Your task to perform on an android device: Go to accessibility settings Image 0: 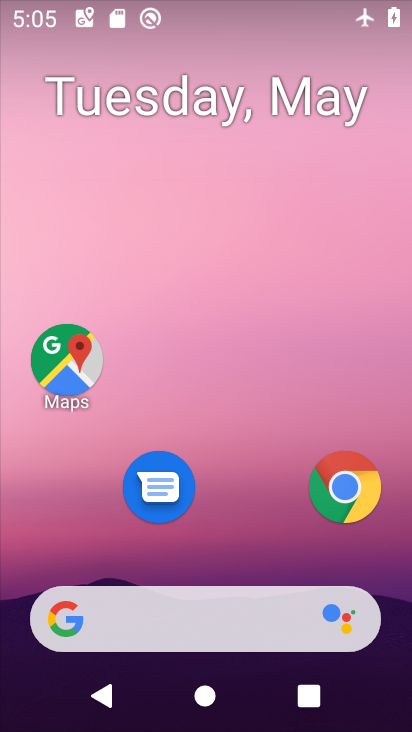
Step 0: drag from (264, 580) to (240, 11)
Your task to perform on an android device: Go to accessibility settings Image 1: 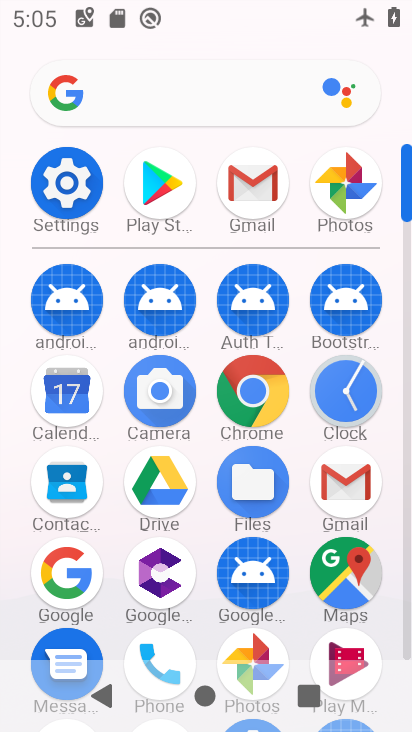
Step 1: click (90, 167)
Your task to perform on an android device: Go to accessibility settings Image 2: 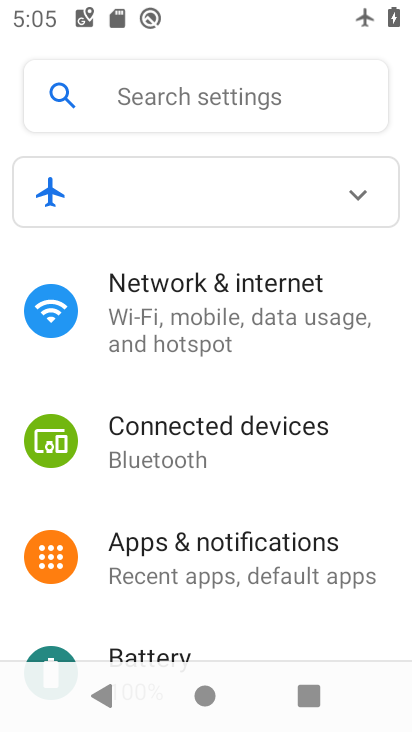
Step 2: click (157, 272)
Your task to perform on an android device: Go to accessibility settings Image 3: 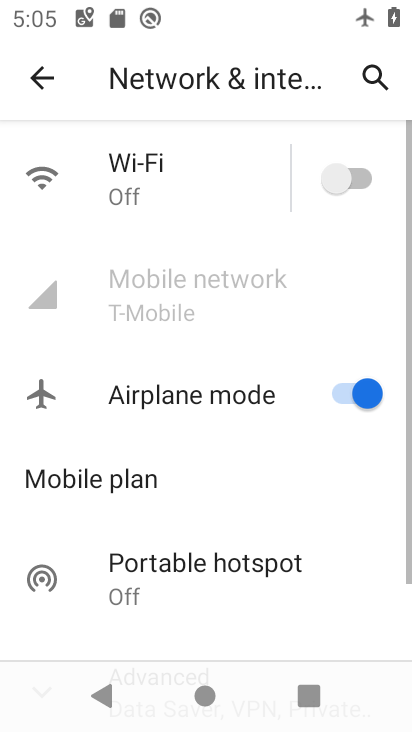
Step 3: click (350, 382)
Your task to perform on an android device: Go to accessibility settings Image 4: 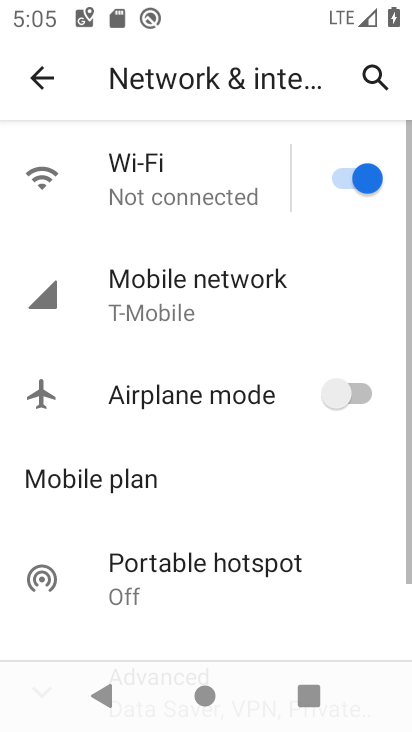
Step 4: click (52, 81)
Your task to perform on an android device: Go to accessibility settings Image 5: 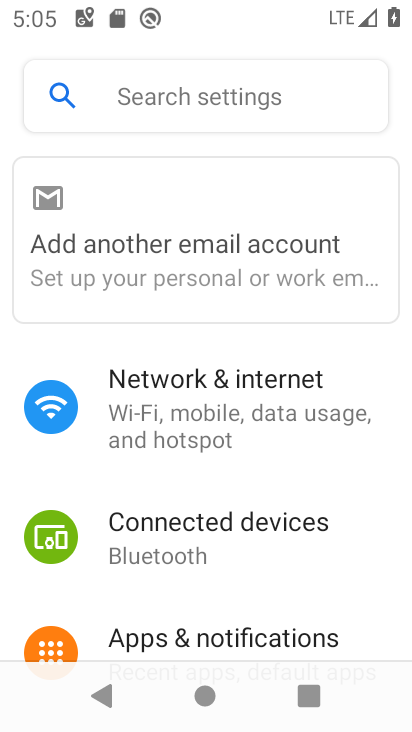
Step 5: drag from (209, 581) to (241, 22)
Your task to perform on an android device: Go to accessibility settings Image 6: 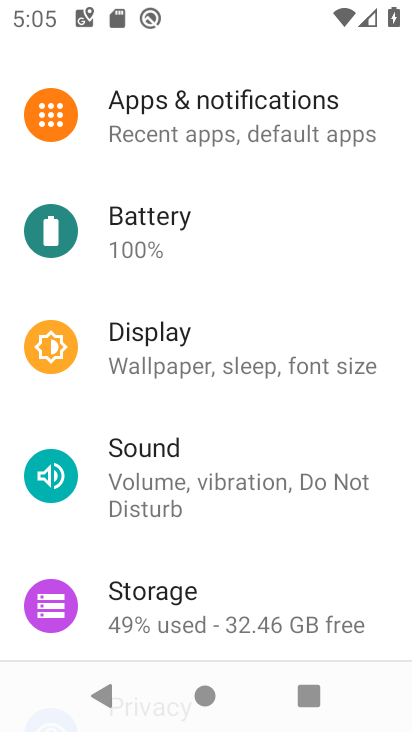
Step 6: drag from (231, 566) to (242, 231)
Your task to perform on an android device: Go to accessibility settings Image 7: 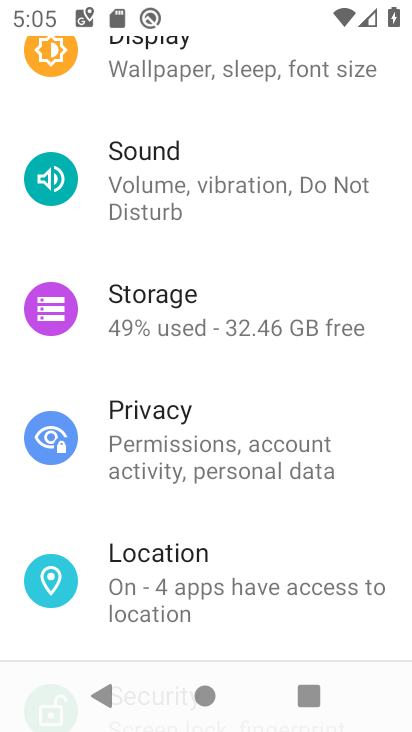
Step 7: drag from (246, 564) to (248, 220)
Your task to perform on an android device: Go to accessibility settings Image 8: 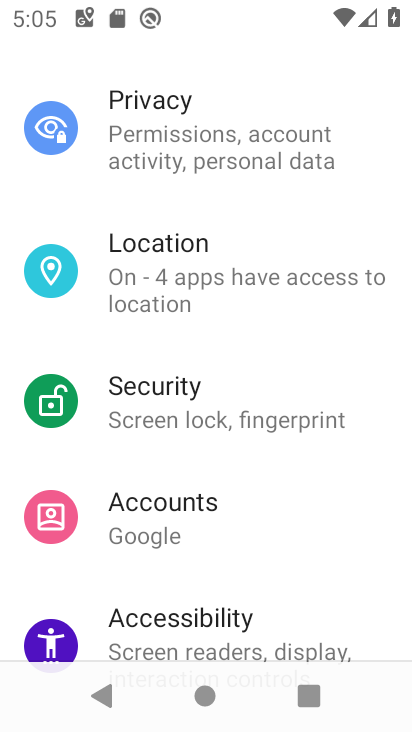
Step 8: click (179, 652)
Your task to perform on an android device: Go to accessibility settings Image 9: 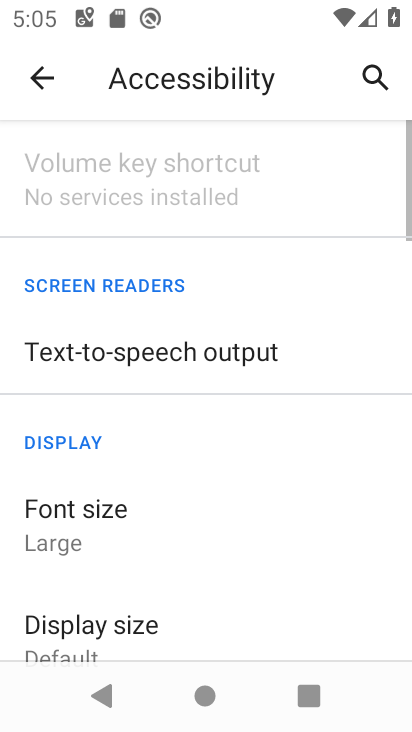
Step 9: task complete